Your task to perform on an android device: open sync settings in chrome Image 0: 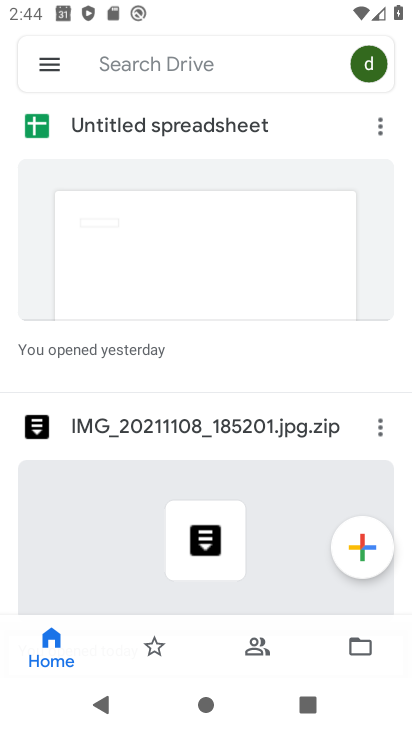
Step 0: press home button
Your task to perform on an android device: open sync settings in chrome Image 1: 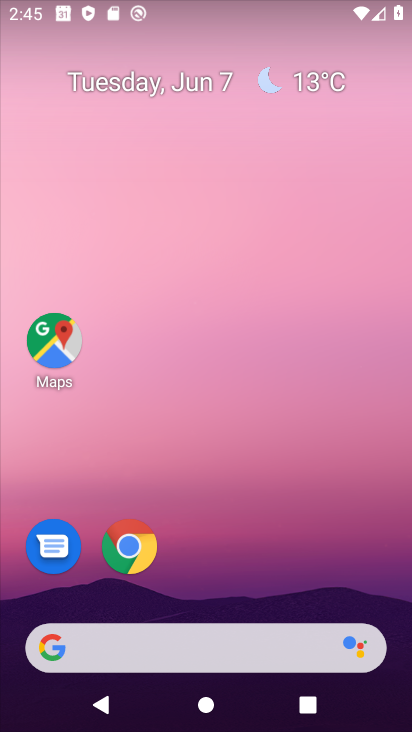
Step 1: click (129, 550)
Your task to perform on an android device: open sync settings in chrome Image 2: 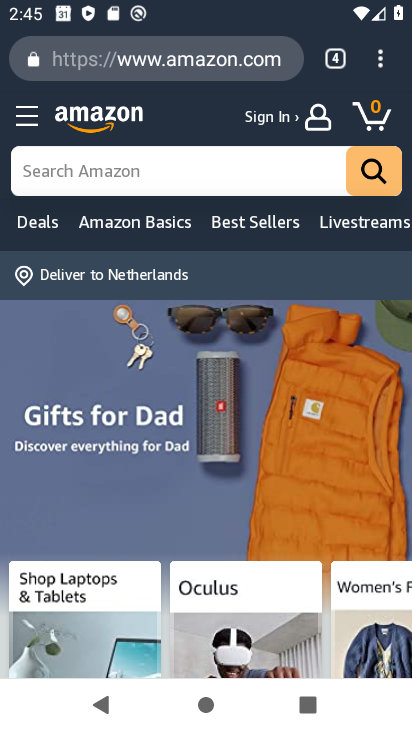
Step 2: click (378, 68)
Your task to perform on an android device: open sync settings in chrome Image 3: 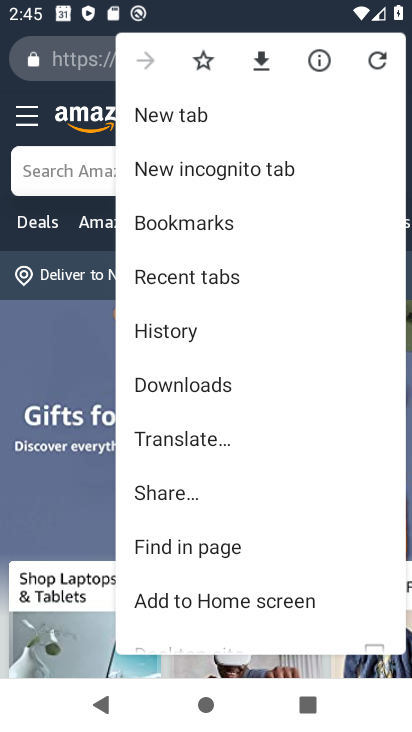
Step 3: drag from (168, 539) to (249, 152)
Your task to perform on an android device: open sync settings in chrome Image 4: 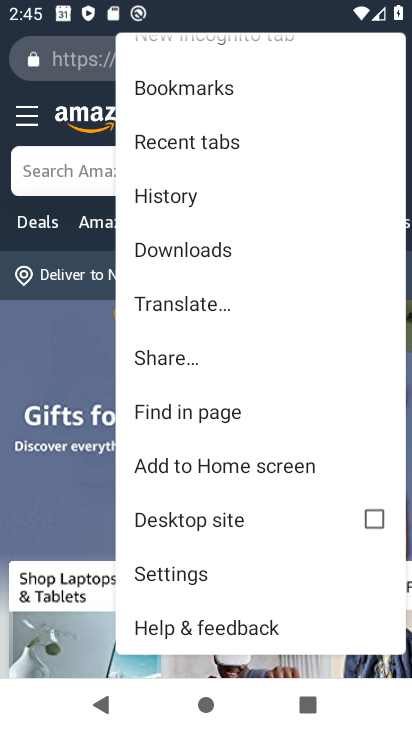
Step 4: click (169, 570)
Your task to perform on an android device: open sync settings in chrome Image 5: 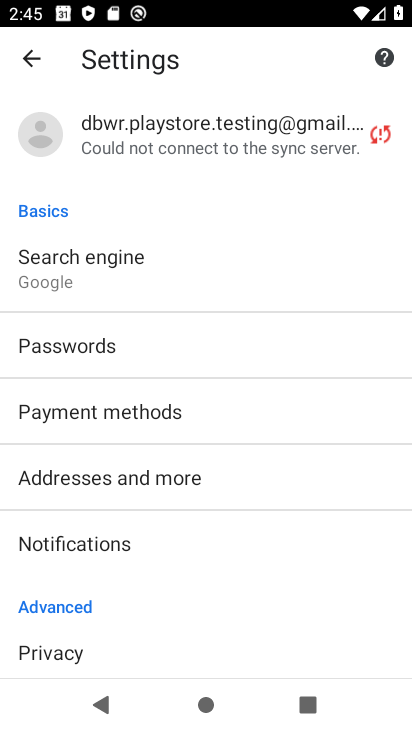
Step 5: drag from (66, 562) to (79, 137)
Your task to perform on an android device: open sync settings in chrome Image 6: 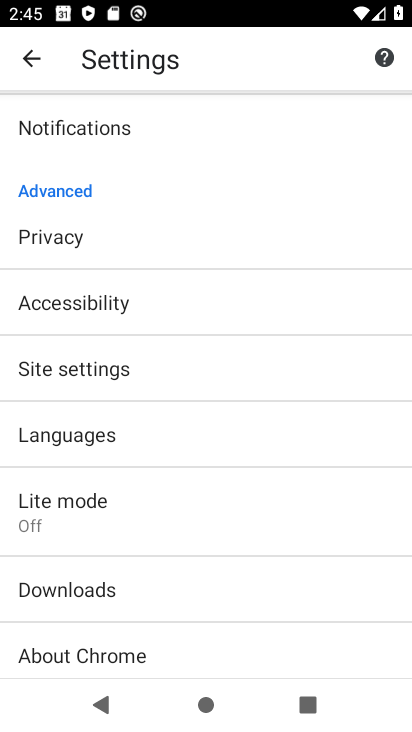
Step 6: drag from (140, 165) to (189, 540)
Your task to perform on an android device: open sync settings in chrome Image 7: 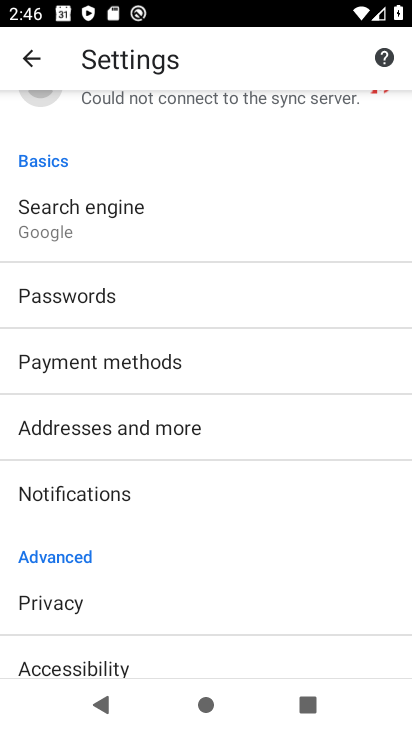
Step 7: click (128, 106)
Your task to perform on an android device: open sync settings in chrome Image 8: 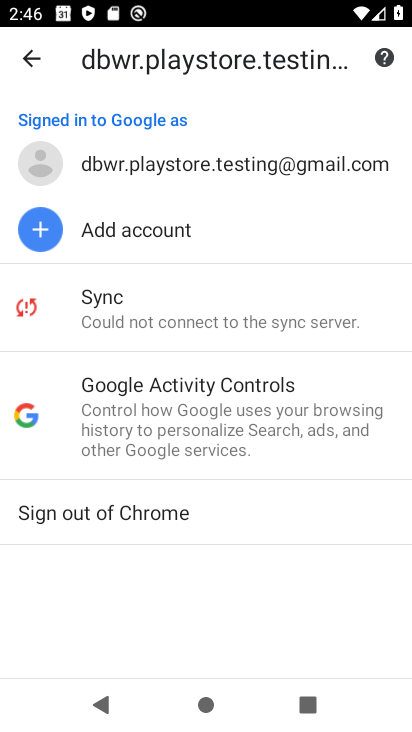
Step 8: click (124, 303)
Your task to perform on an android device: open sync settings in chrome Image 9: 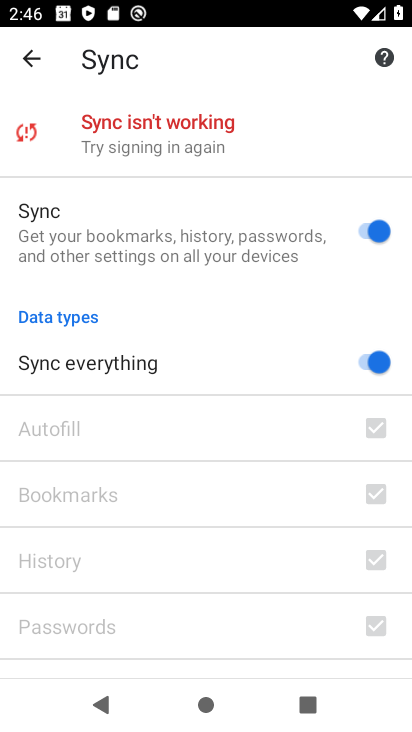
Step 9: task complete